Your task to perform on an android device: Is it going to rain today? Image 0: 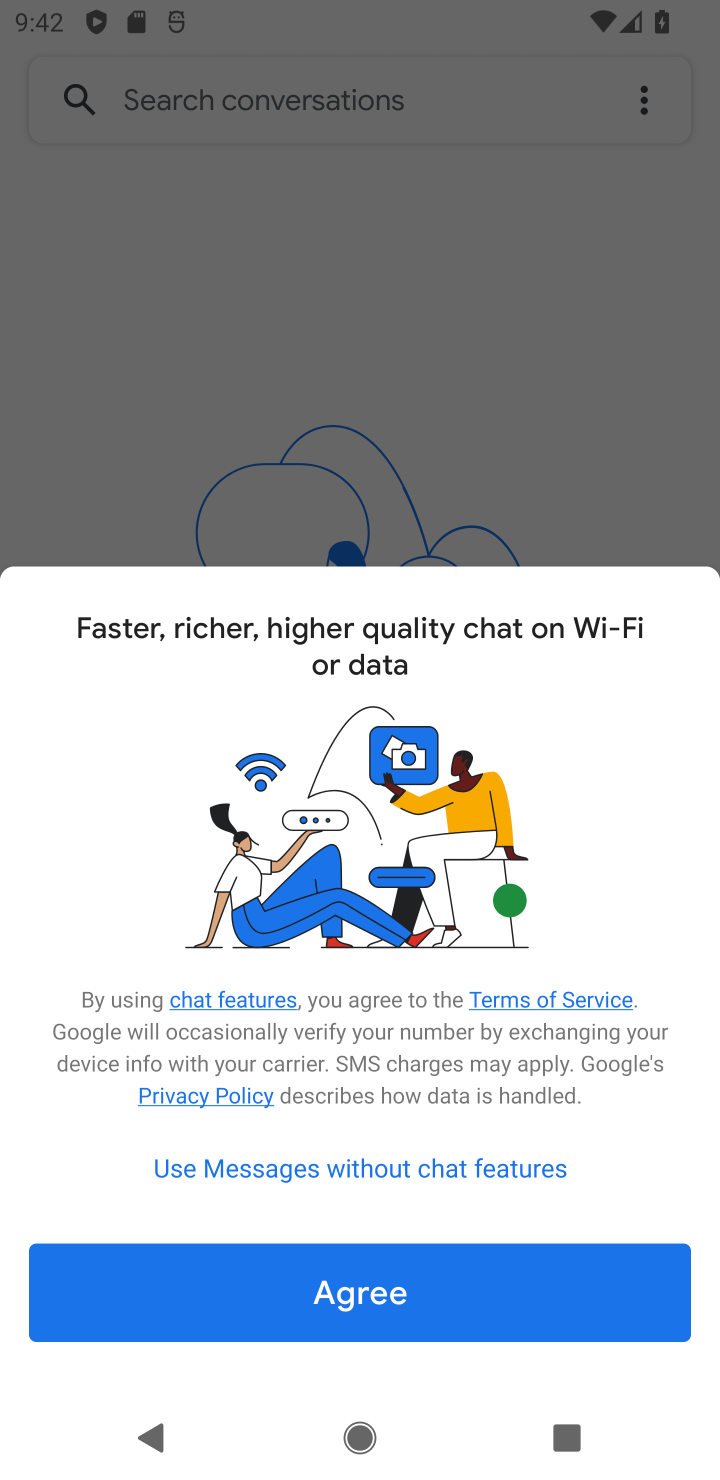
Step 0: click (325, 1301)
Your task to perform on an android device: Is it going to rain today? Image 1: 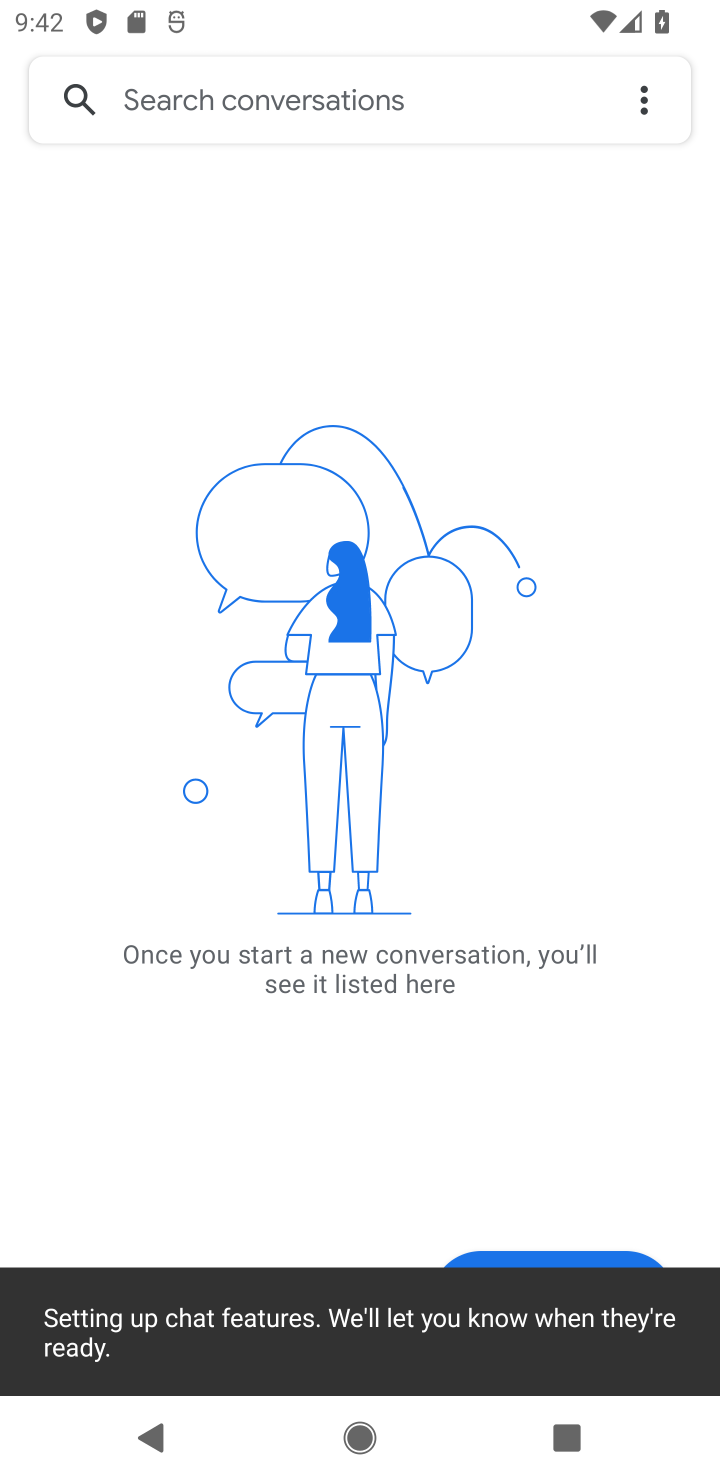
Step 1: press home button
Your task to perform on an android device: Is it going to rain today? Image 2: 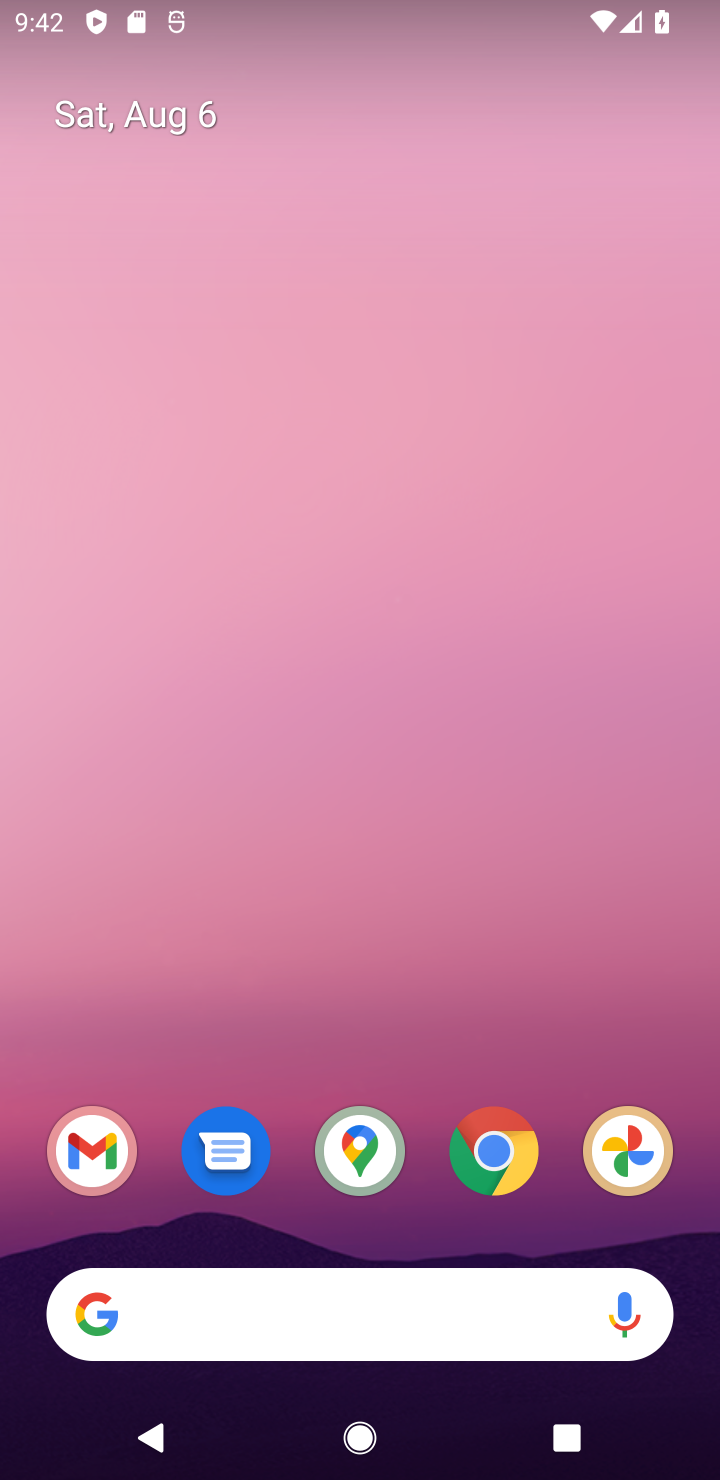
Step 2: drag from (390, 578) to (406, 222)
Your task to perform on an android device: Is it going to rain today? Image 3: 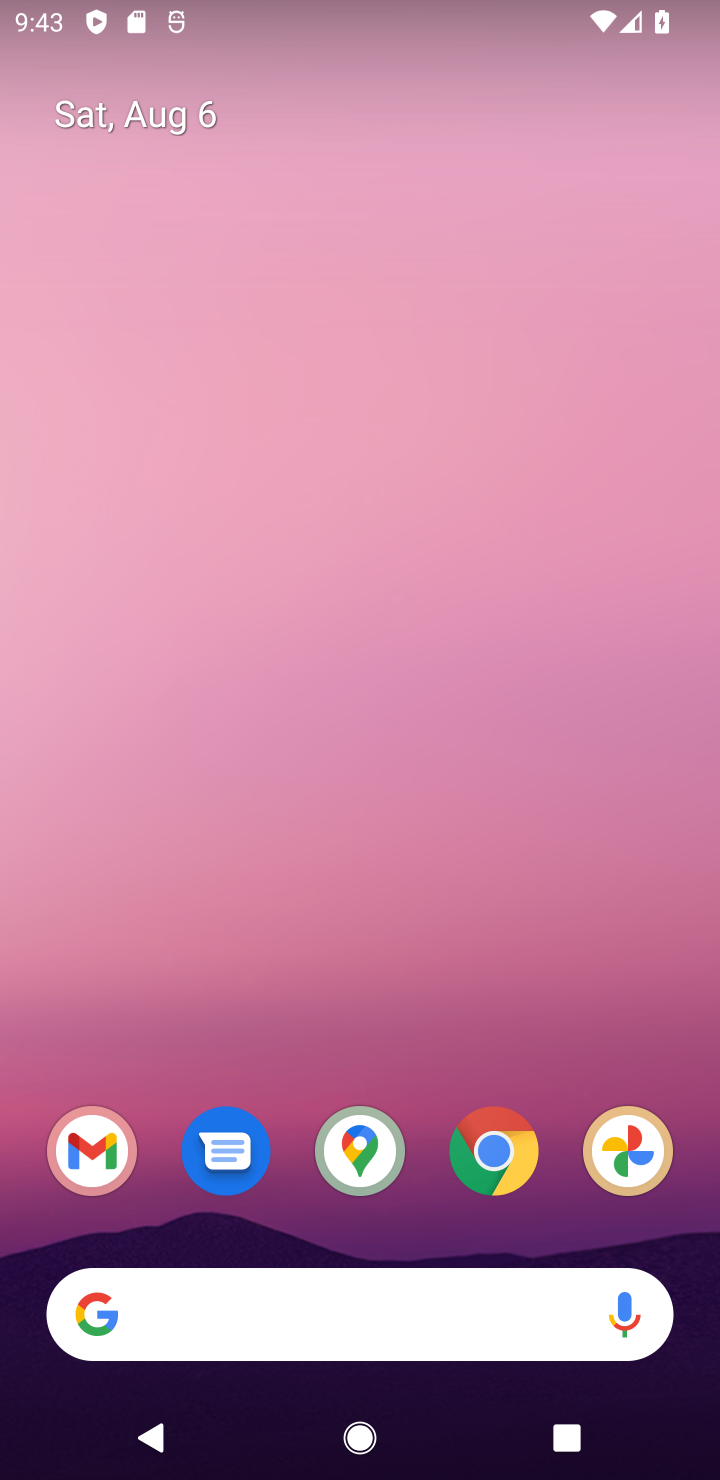
Step 3: drag from (351, 621) to (353, 172)
Your task to perform on an android device: Is it going to rain today? Image 4: 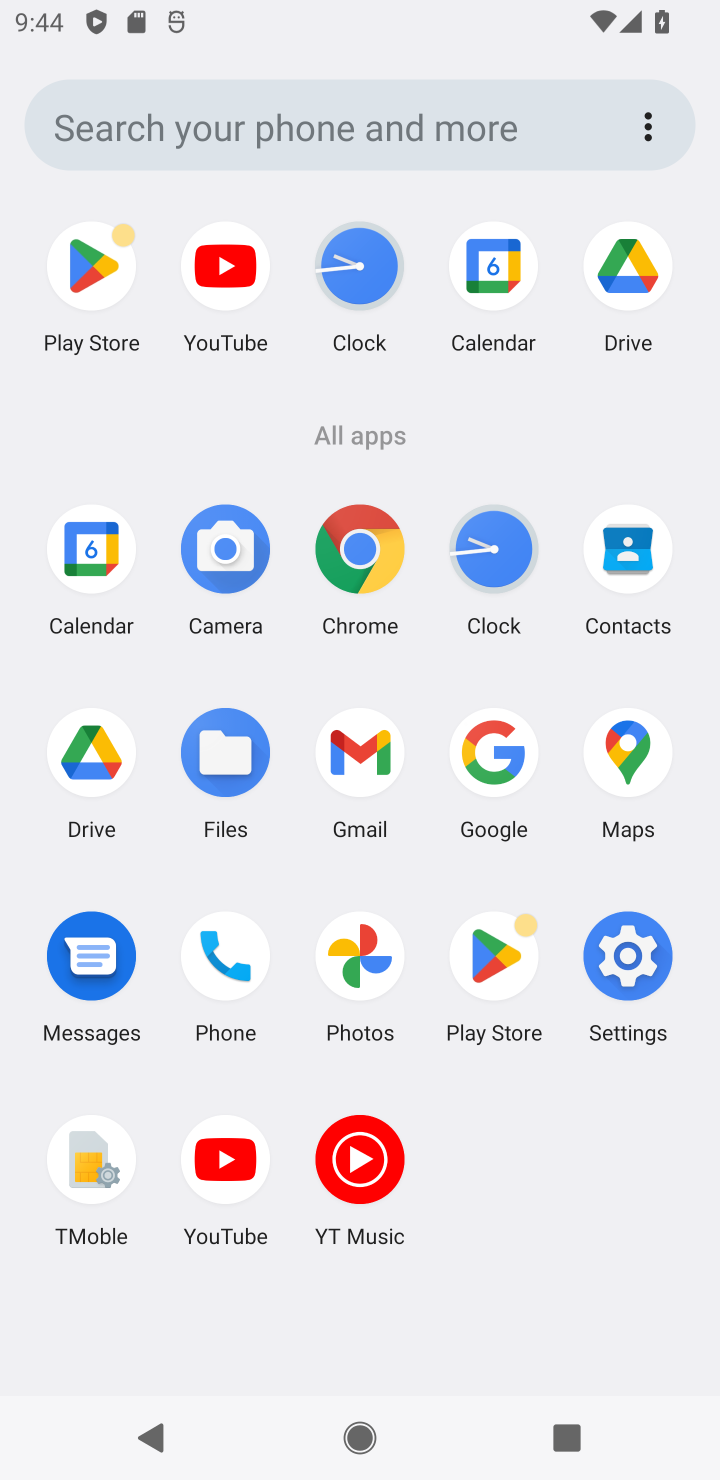
Step 4: click (335, 572)
Your task to perform on an android device: Is it going to rain today? Image 5: 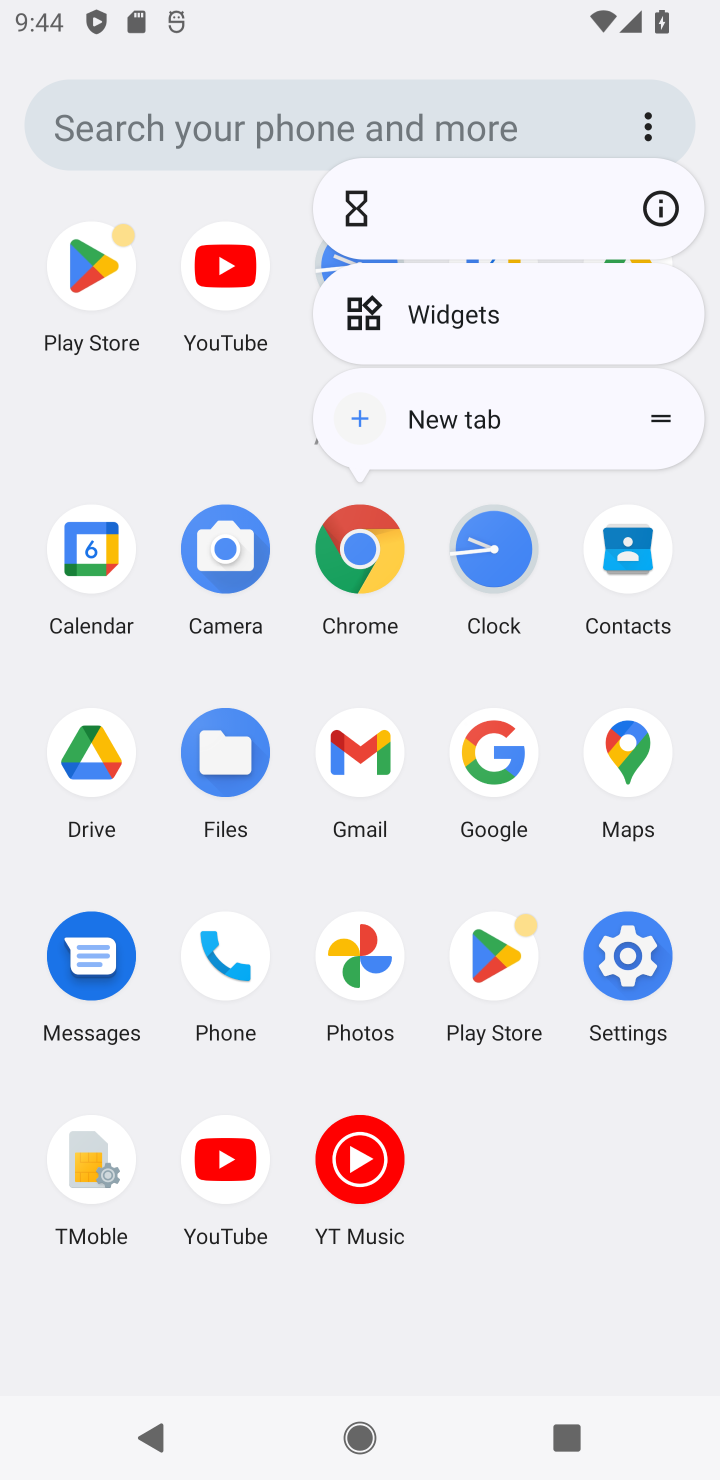
Step 5: click (360, 583)
Your task to perform on an android device: Is it going to rain today? Image 6: 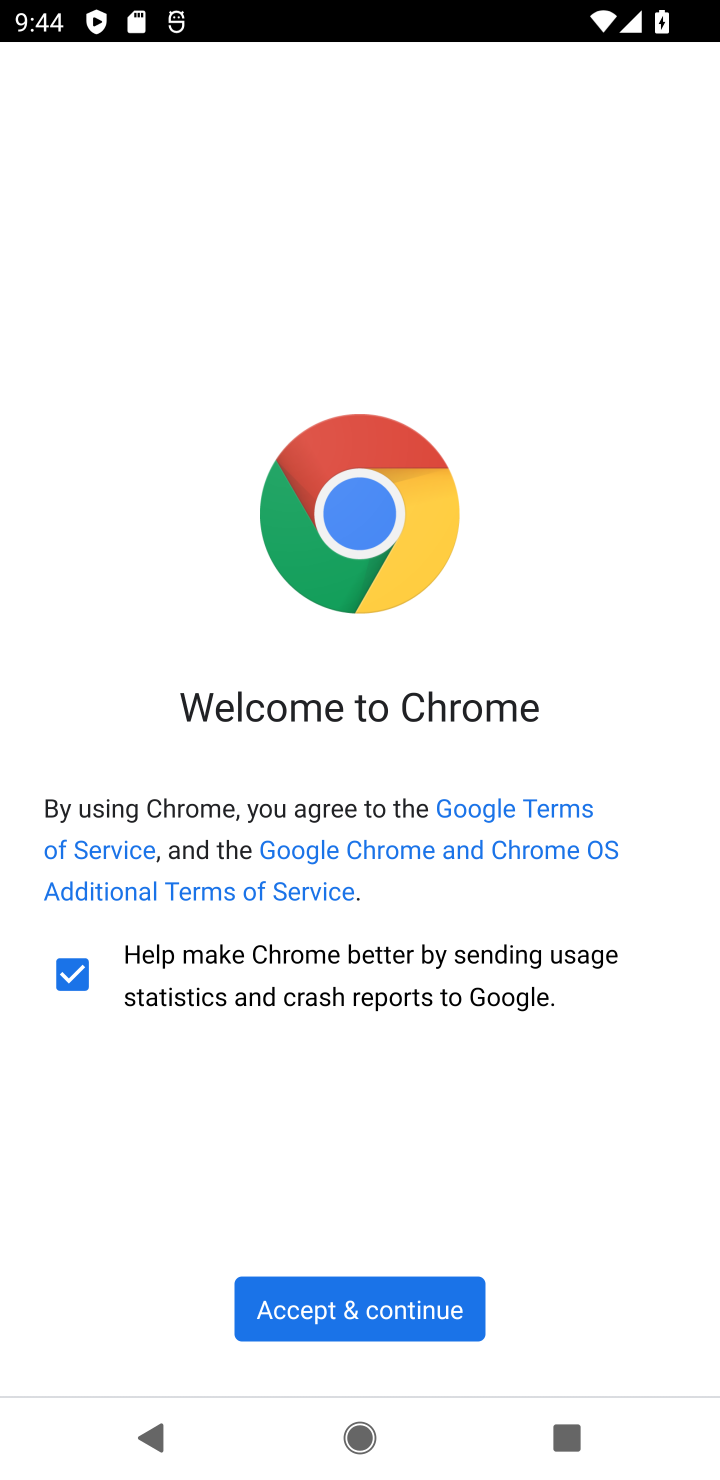
Step 6: click (357, 1310)
Your task to perform on an android device: Is it going to rain today? Image 7: 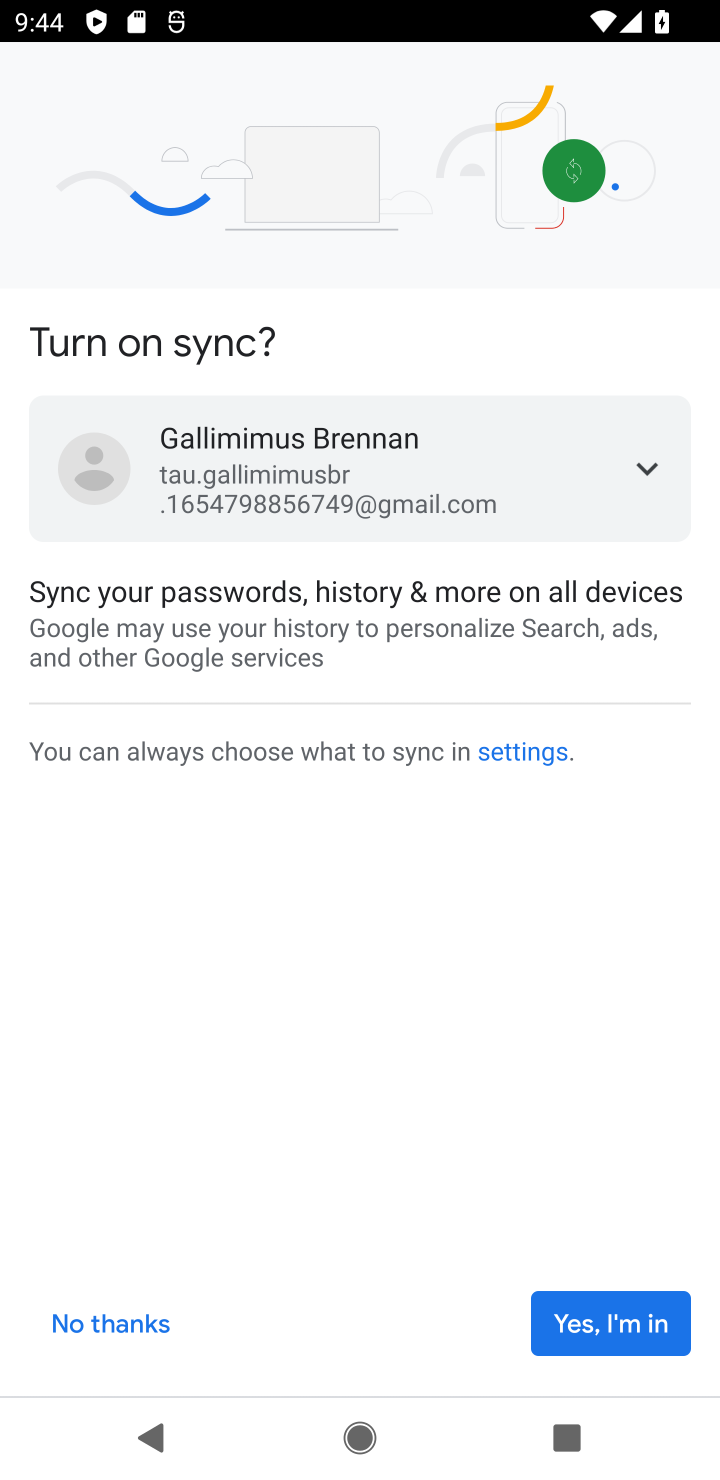
Step 7: click (60, 1329)
Your task to perform on an android device: Is it going to rain today? Image 8: 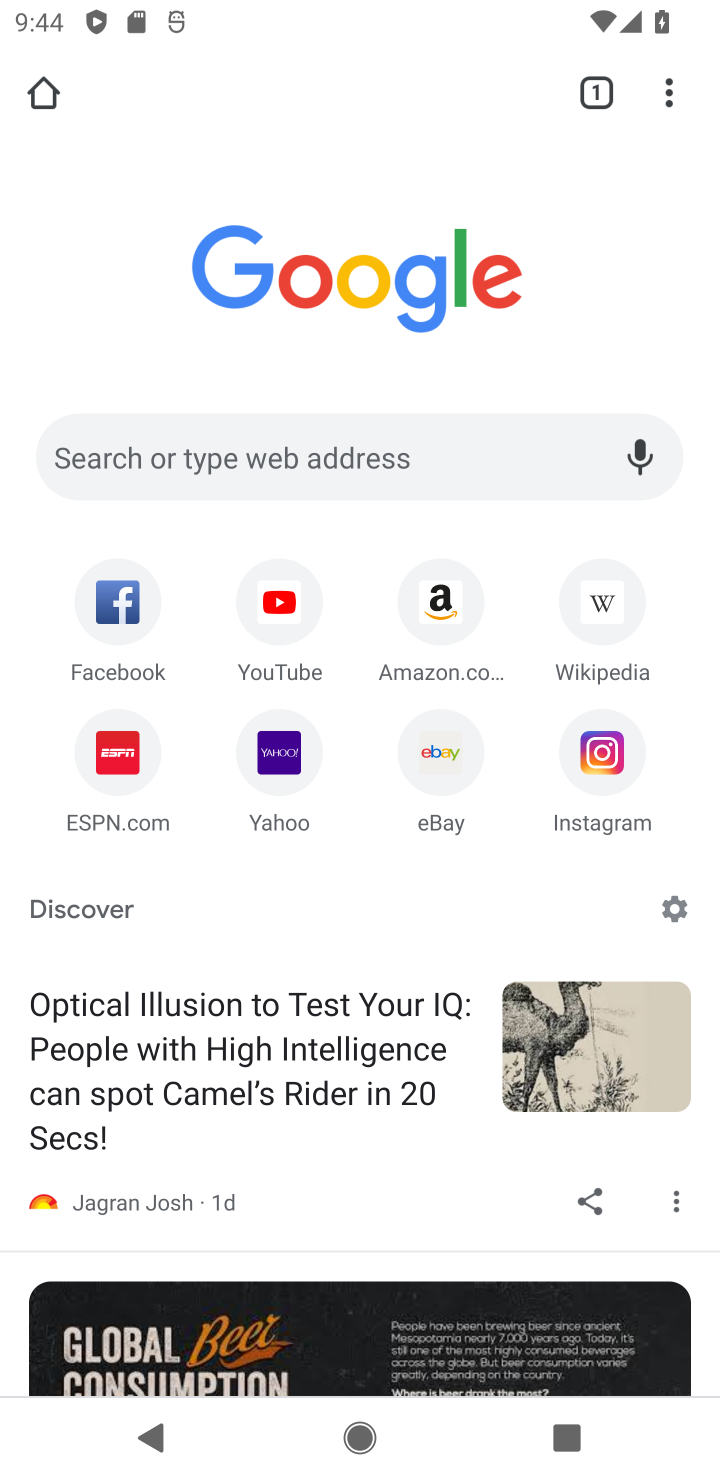
Step 8: click (228, 466)
Your task to perform on an android device: Is it going to rain today? Image 9: 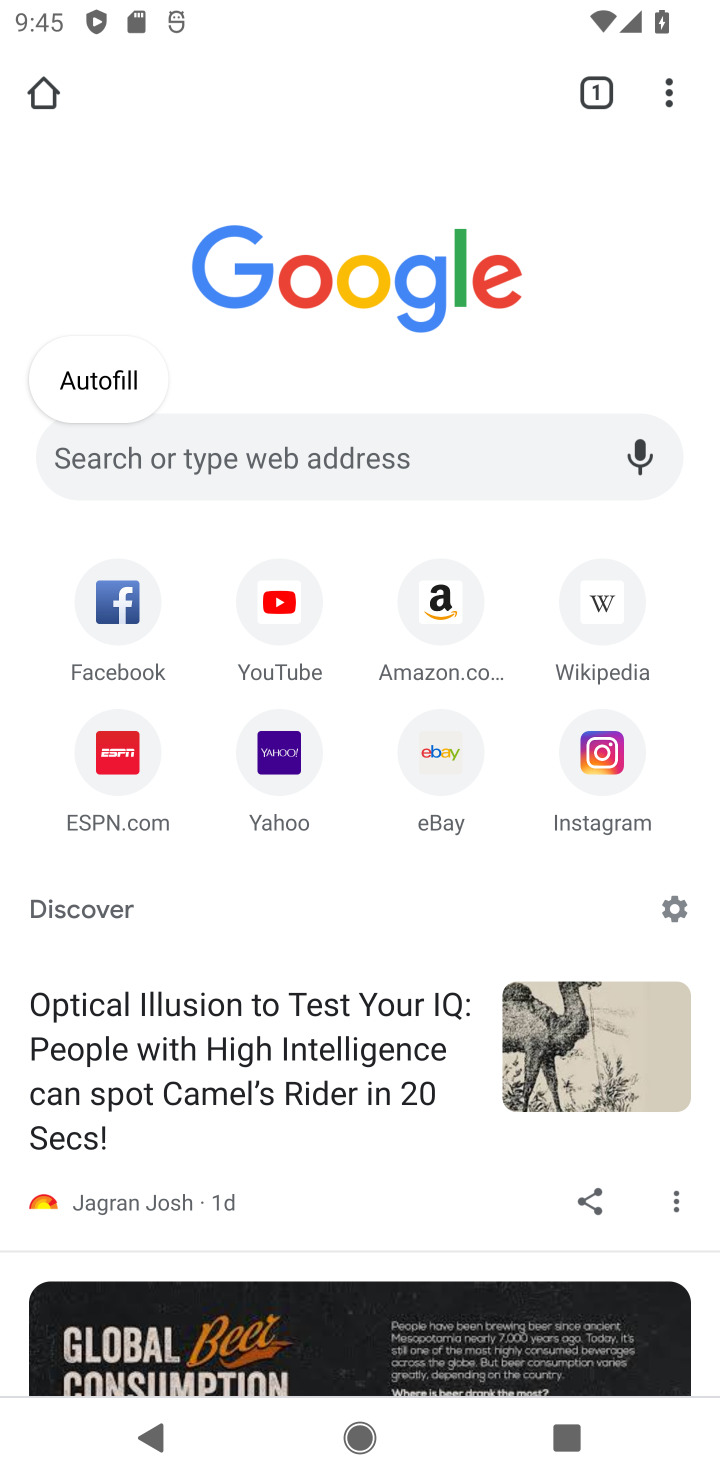
Step 9: type "Is it going to rain today?"
Your task to perform on an android device: Is it going to rain today? Image 10: 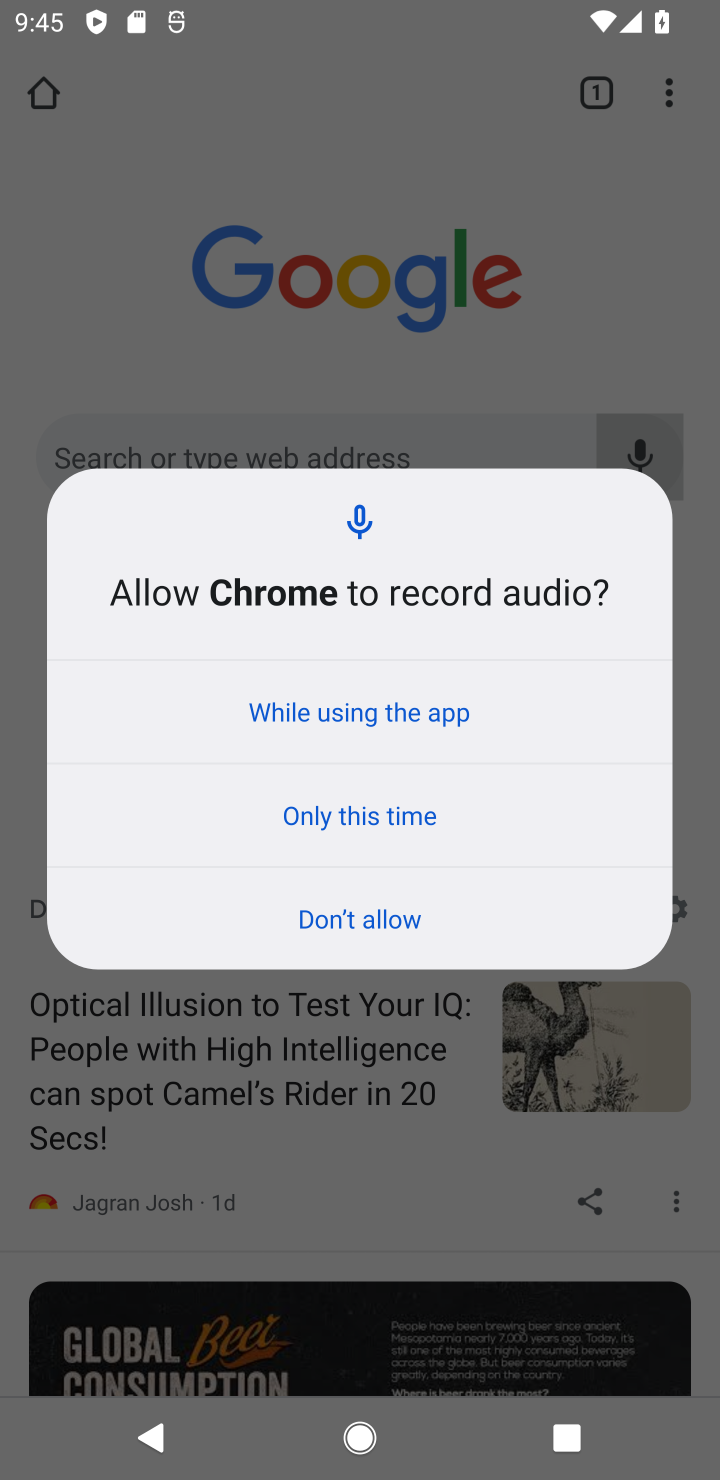
Step 10: type ""
Your task to perform on an android device: Is it going to rain today? Image 11: 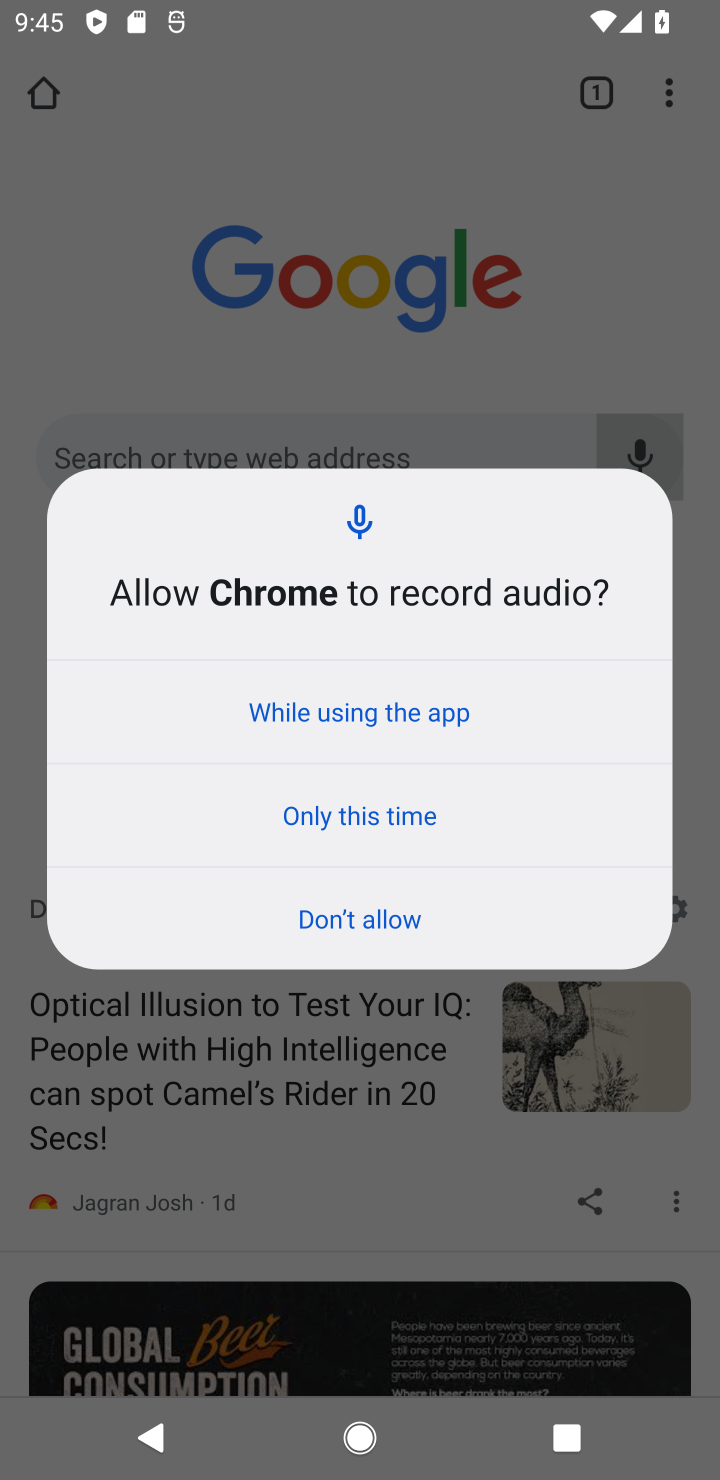
Step 11: click (320, 809)
Your task to perform on an android device: Is it going to rain today? Image 12: 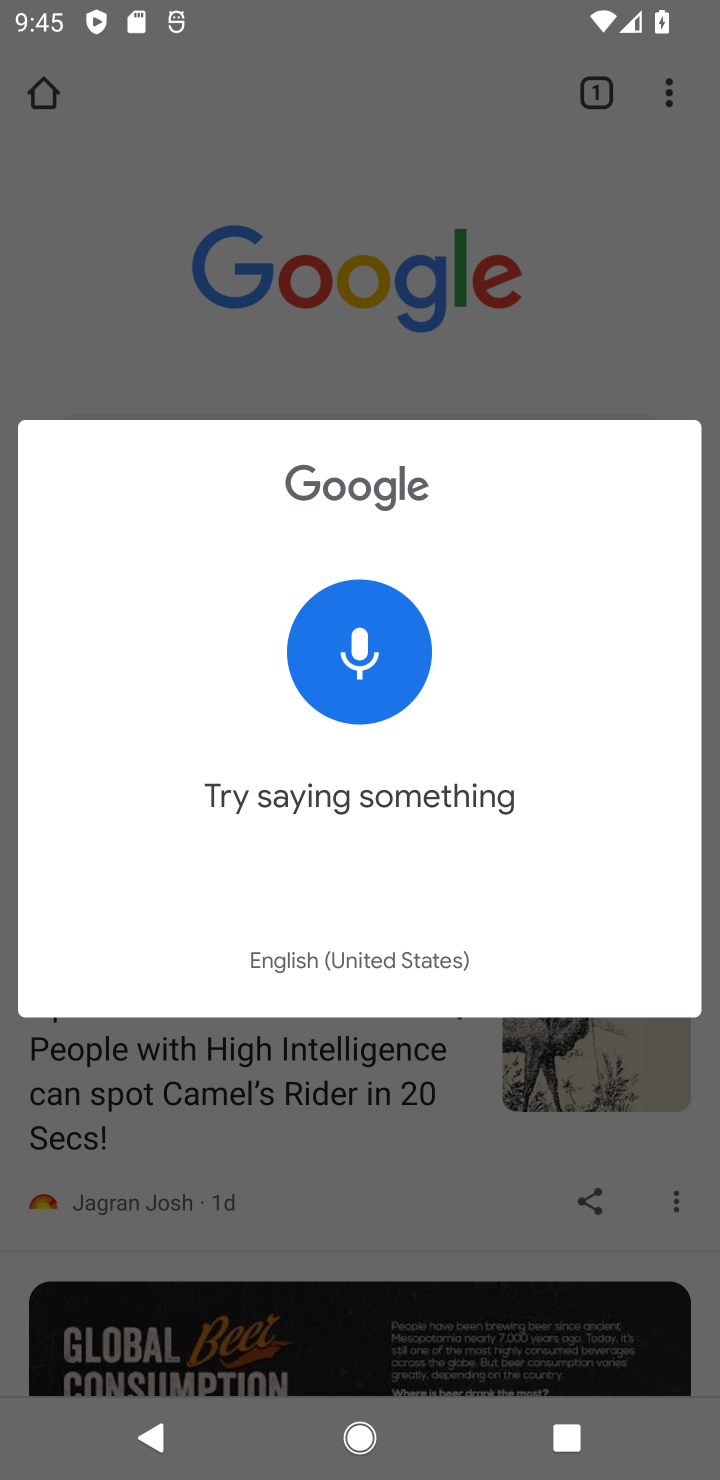
Step 12: click (379, 1132)
Your task to perform on an android device: Is it going to rain today? Image 13: 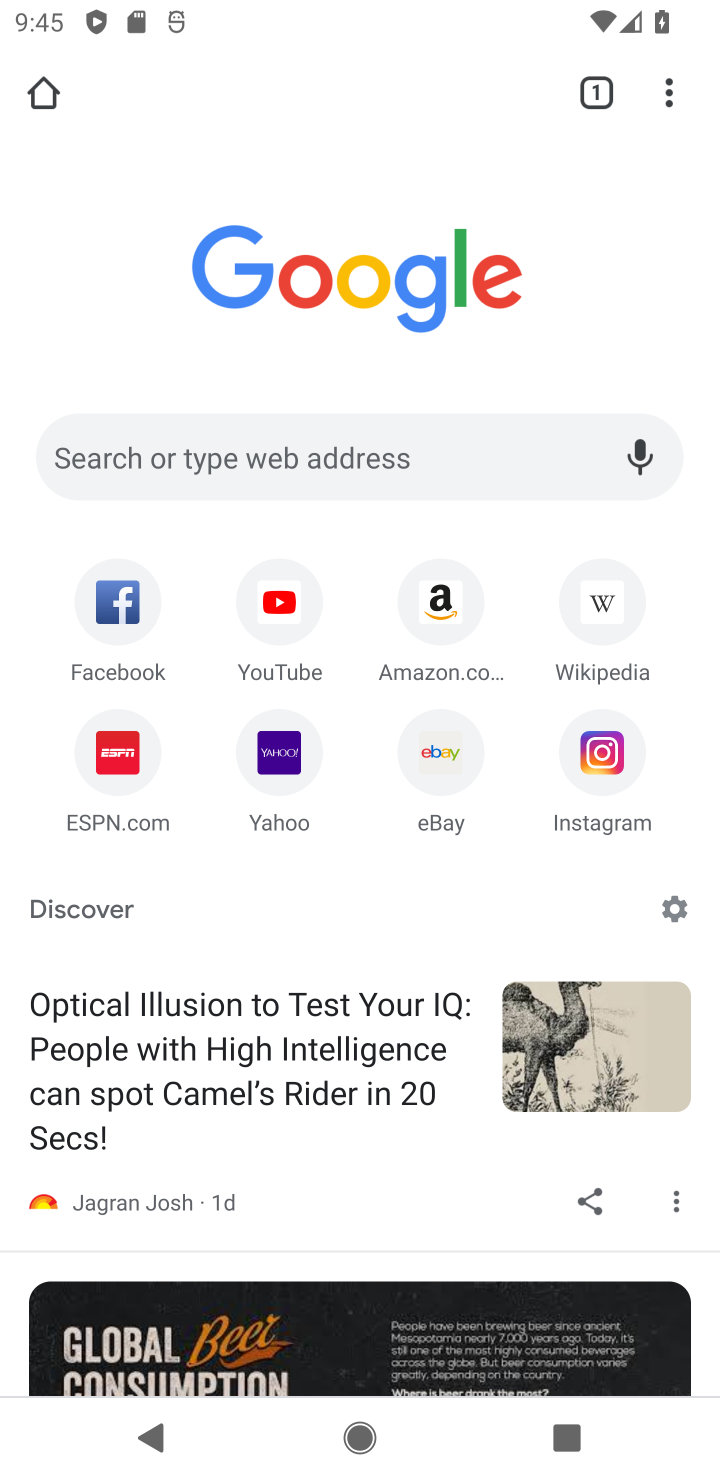
Step 13: click (99, 466)
Your task to perform on an android device: Is it going to rain today? Image 14: 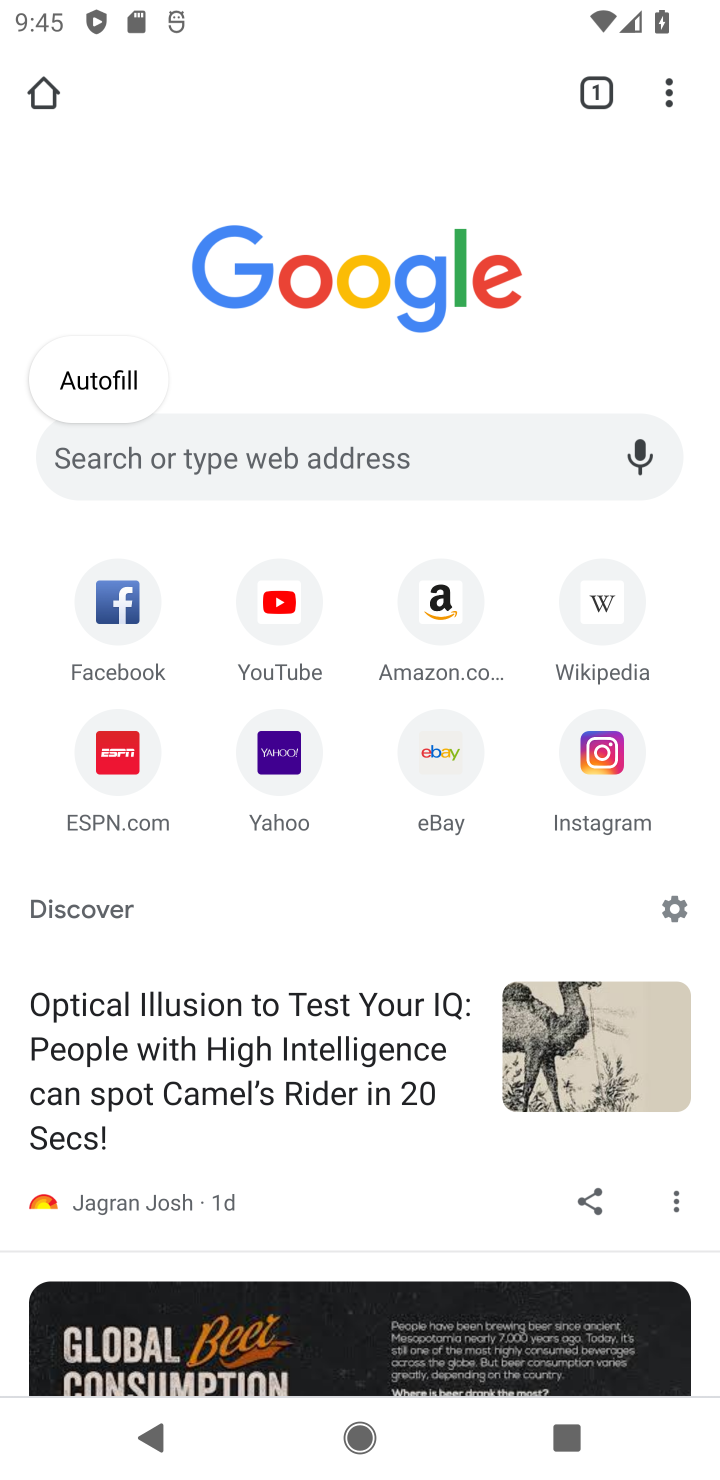
Step 14: type "Is it going to rain today?"
Your task to perform on an android device: Is it going to rain today? Image 15: 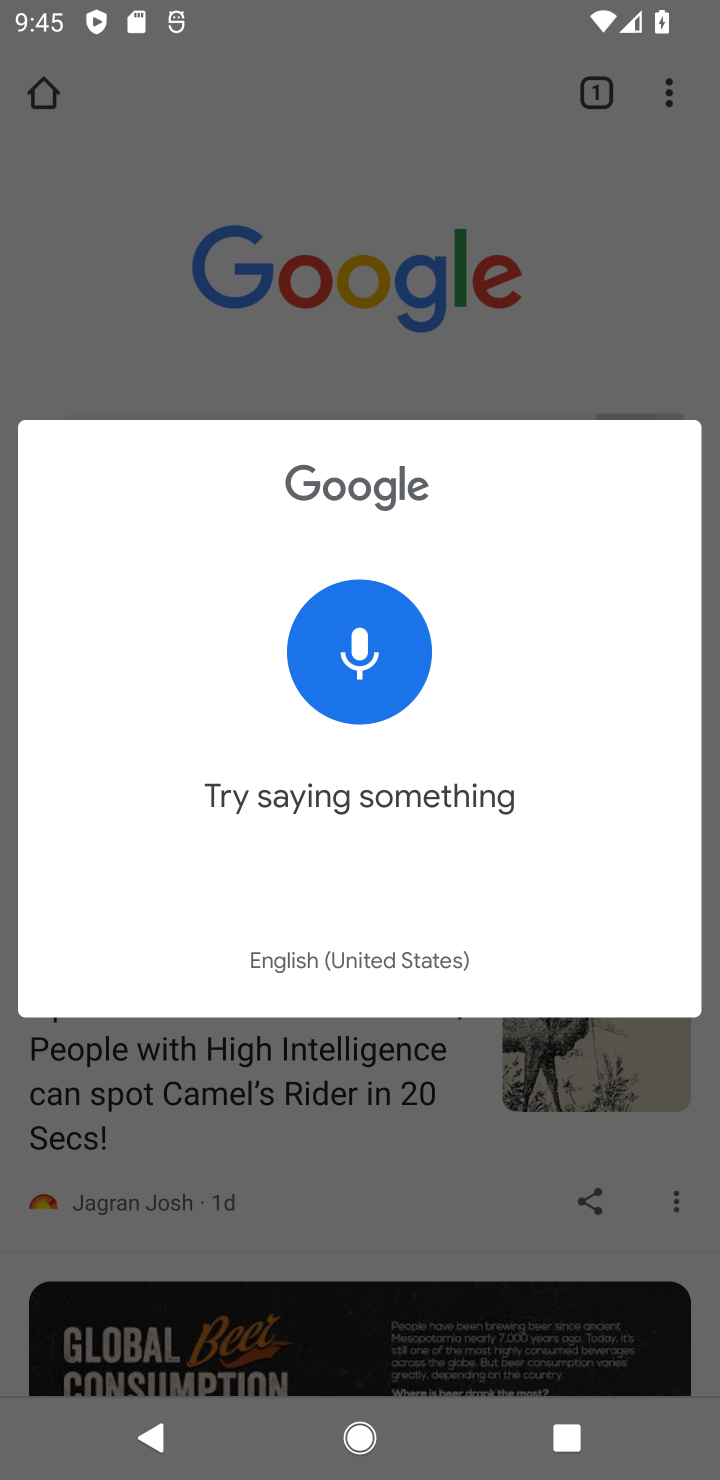
Step 15: press enter
Your task to perform on an android device: Is it going to rain today? Image 16: 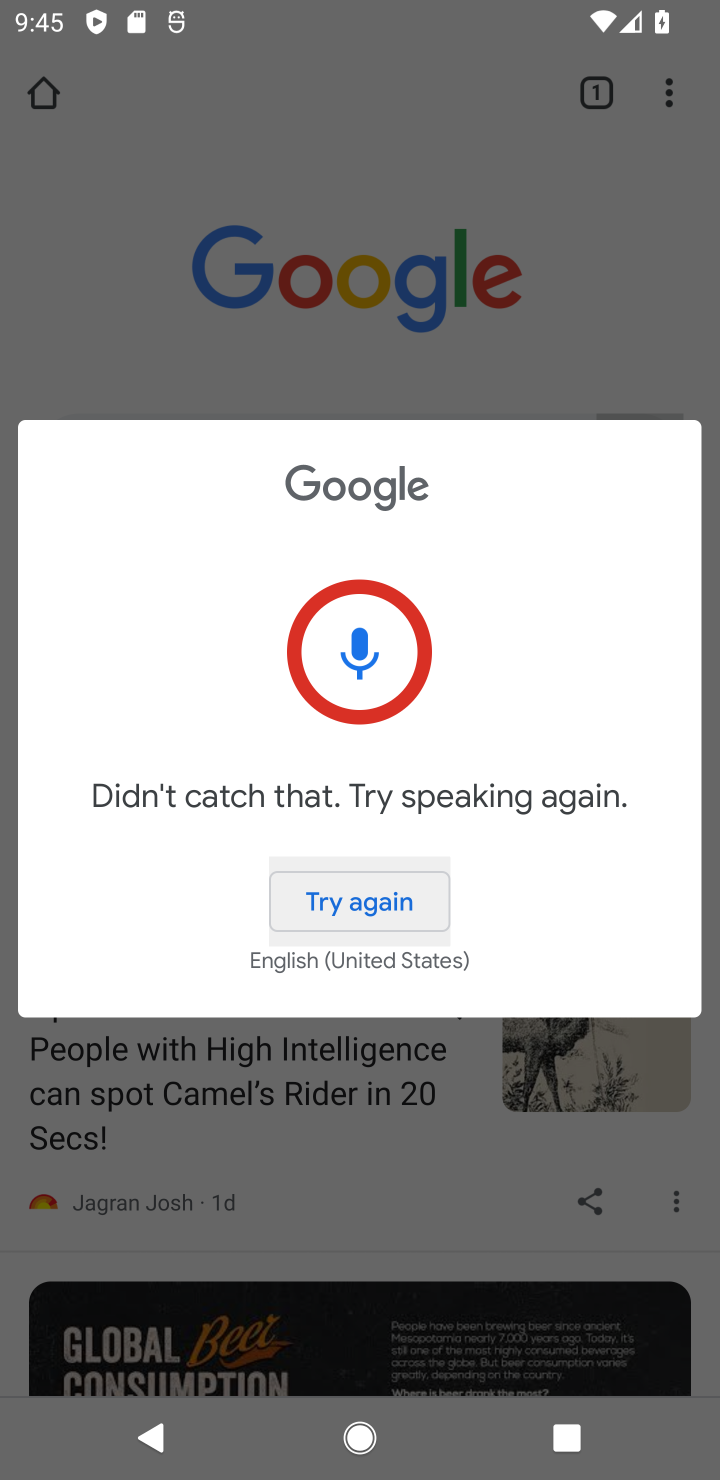
Step 16: click (452, 1204)
Your task to perform on an android device: Is it going to rain today? Image 17: 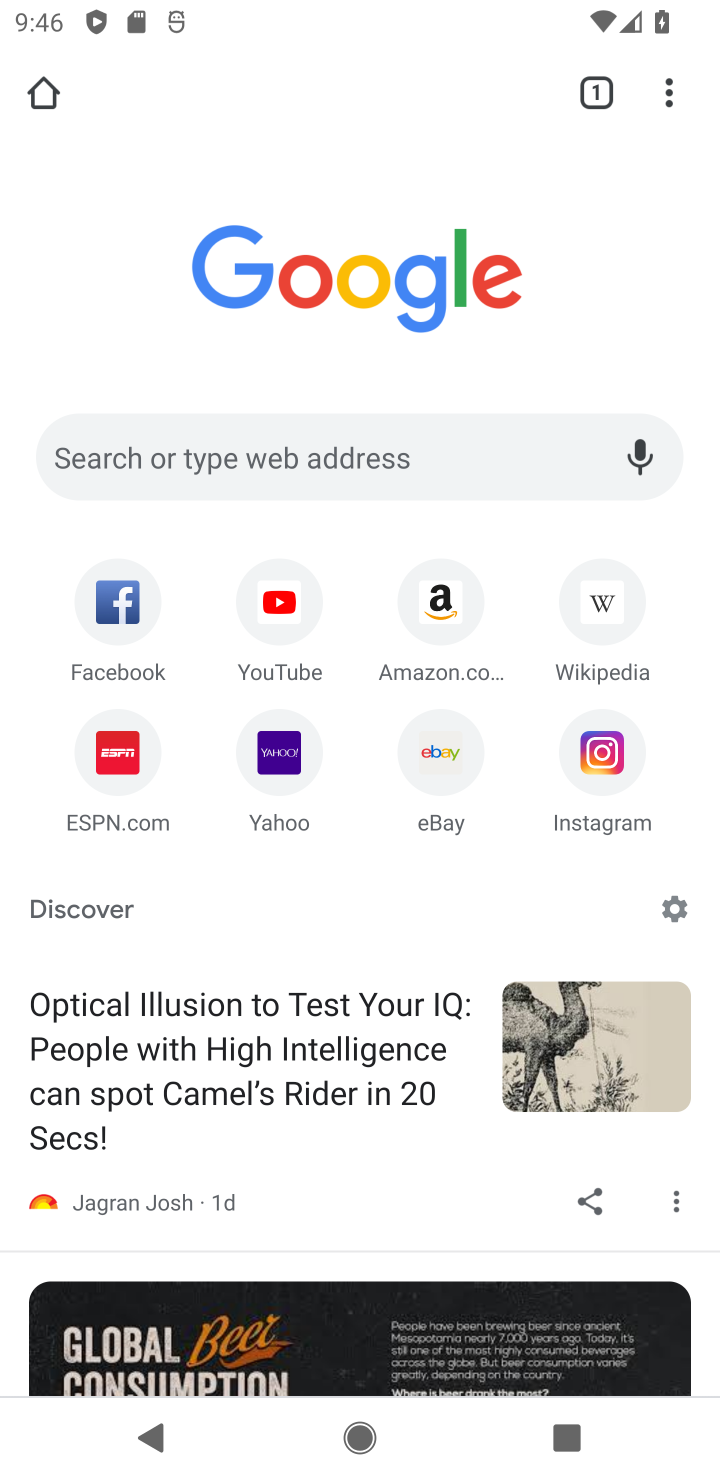
Step 17: click (593, 81)
Your task to perform on an android device: Is it going to rain today? Image 18: 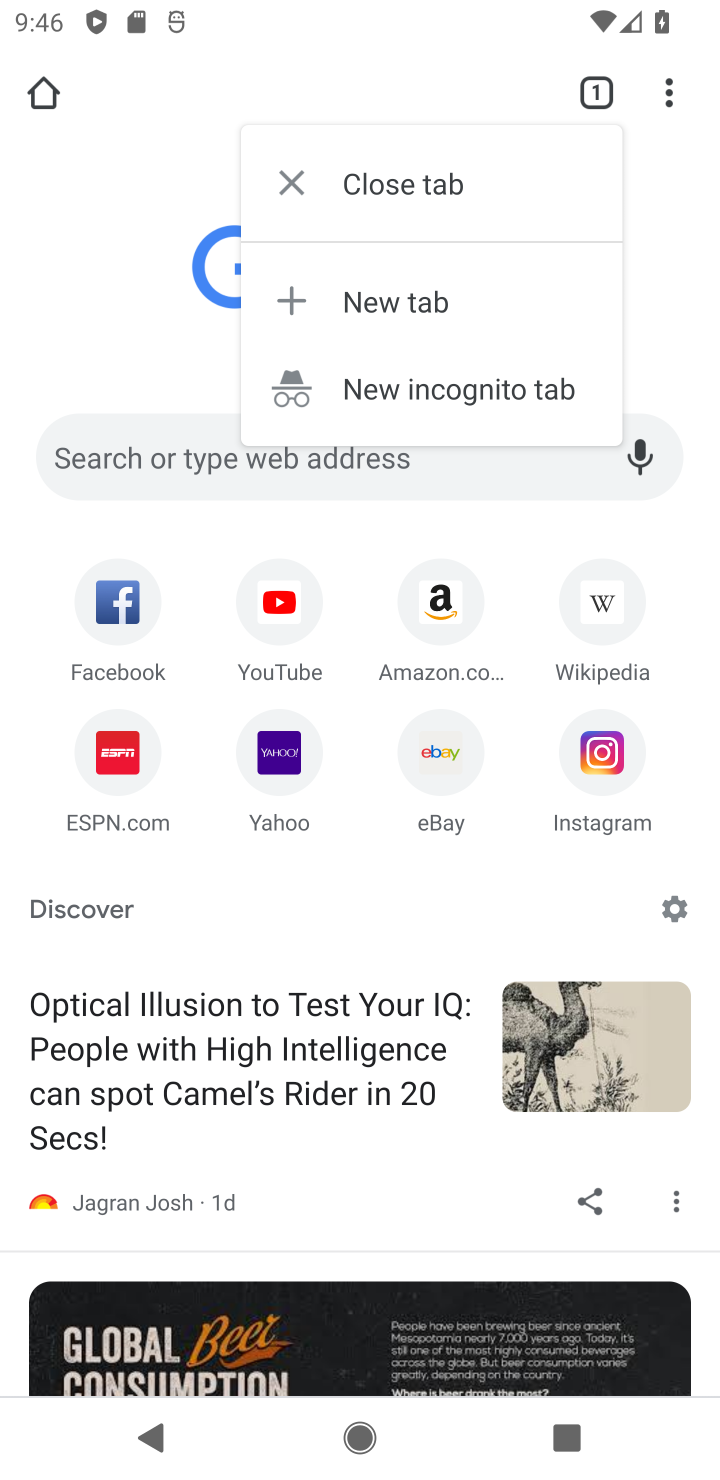
Step 18: click (115, 515)
Your task to perform on an android device: Is it going to rain today? Image 19: 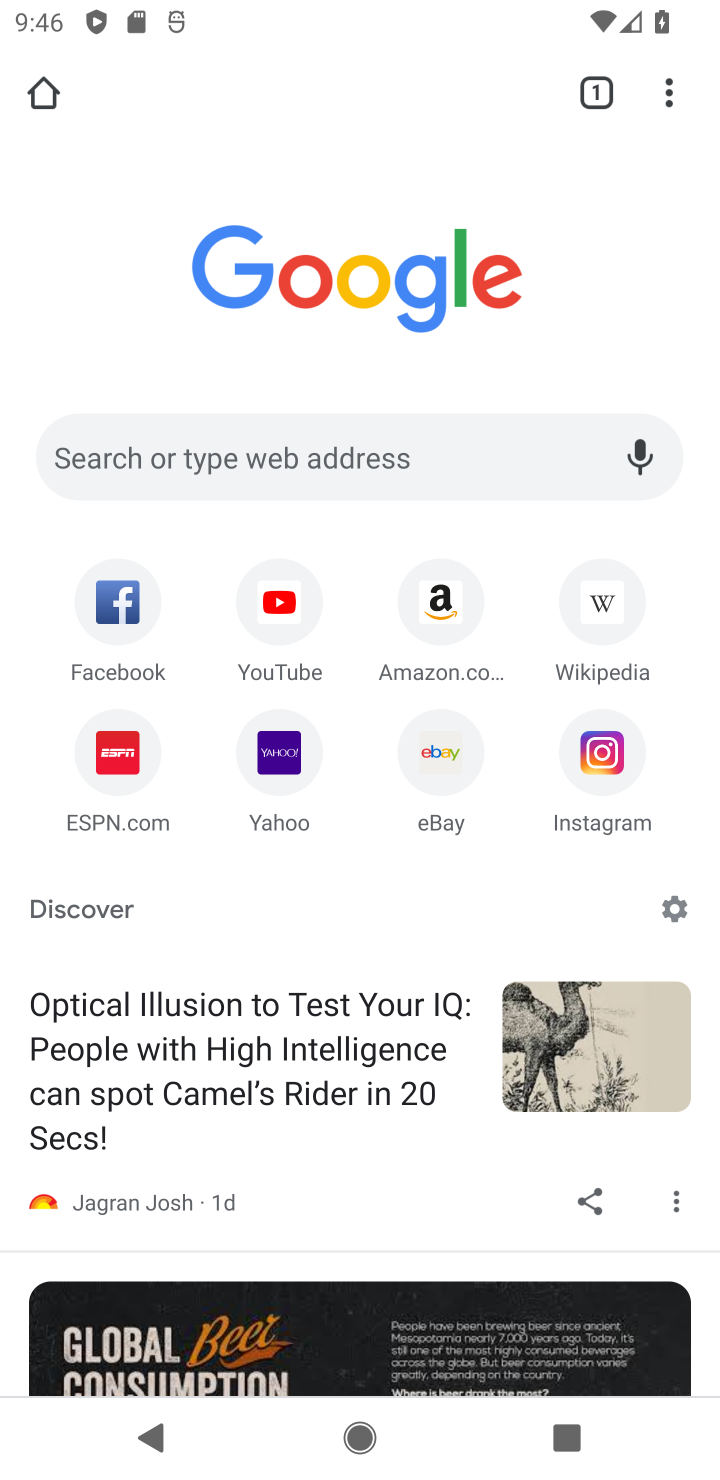
Step 19: click (108, 470)
Your task to perform on an android device: Is it going to rain today? Image 20: 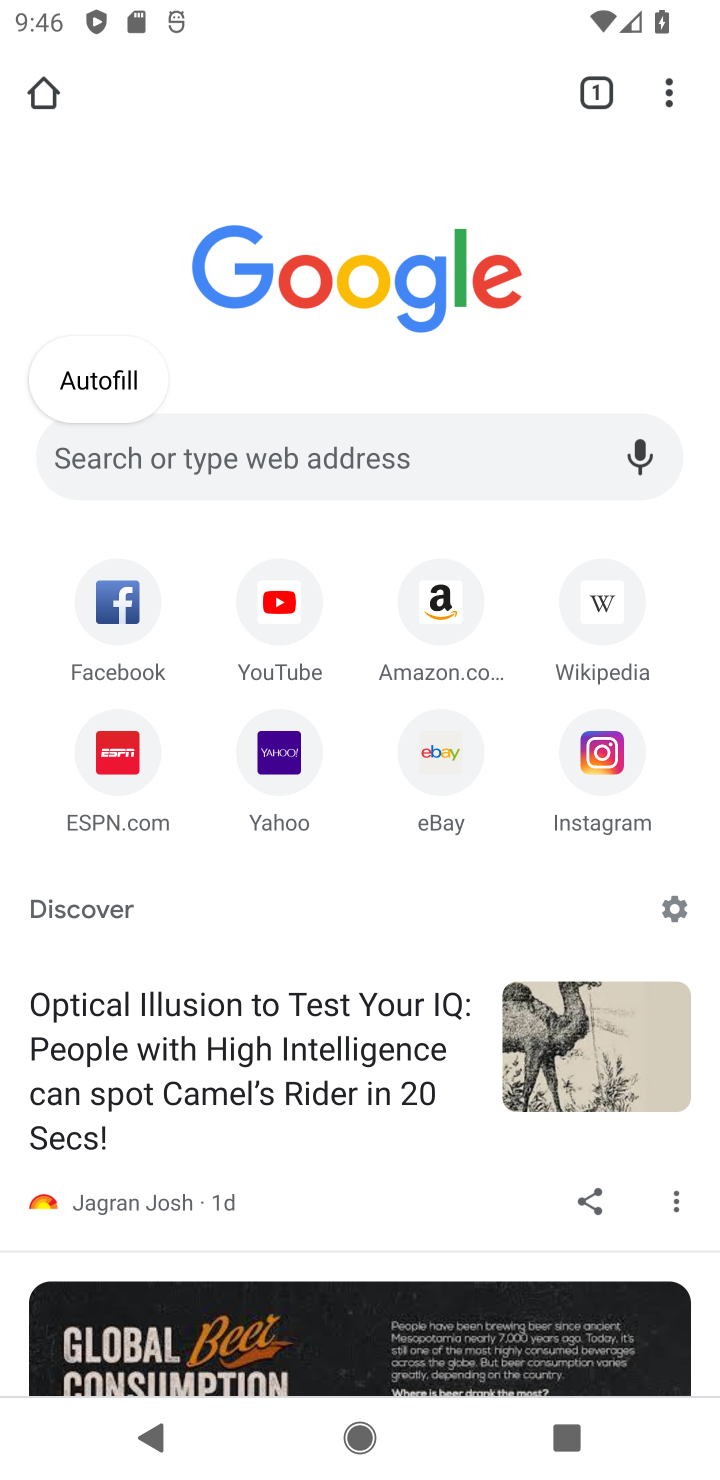
Step 20: type "Is it going to rain today?"
Your task to perform on an android device: Is it going to rain today? Image 21: 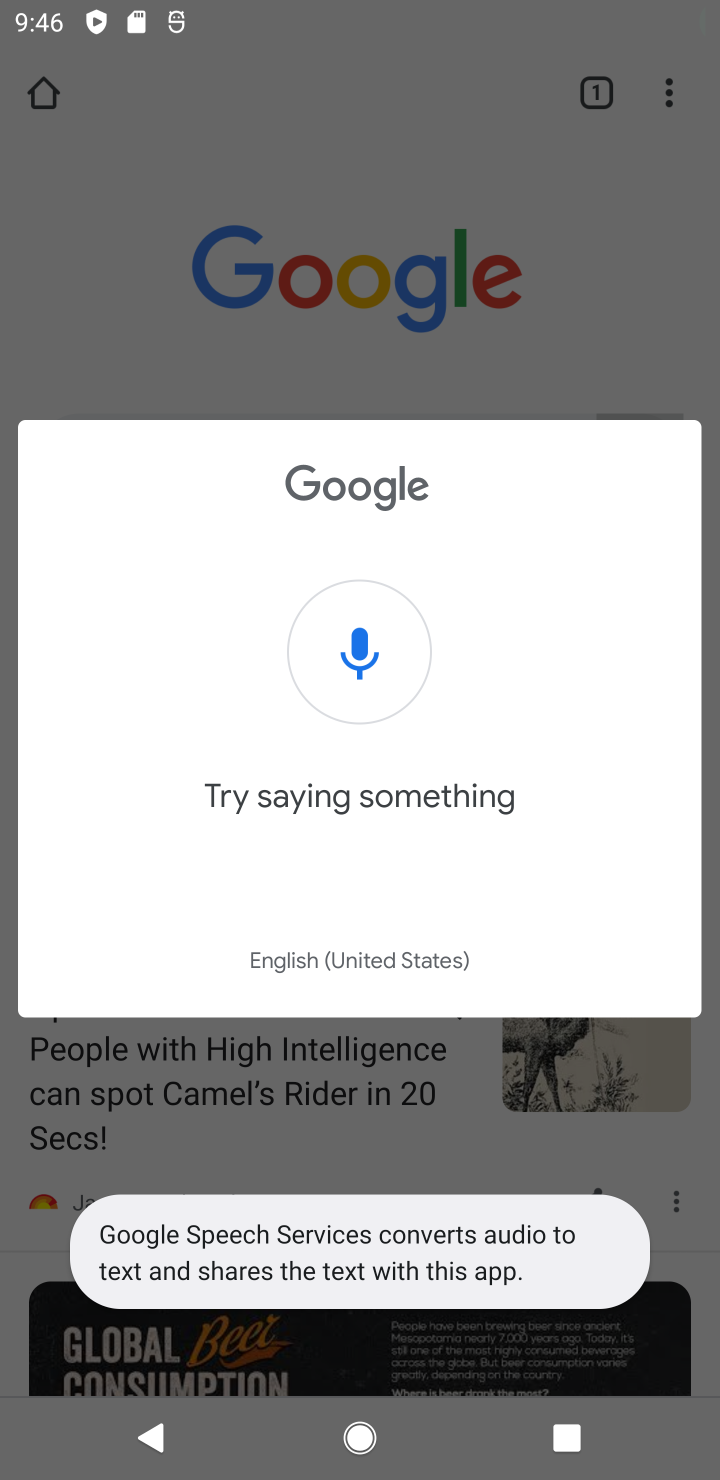
Step 21: press enter
Your task to perform on an android device: Is it going to rain today? Image 22: 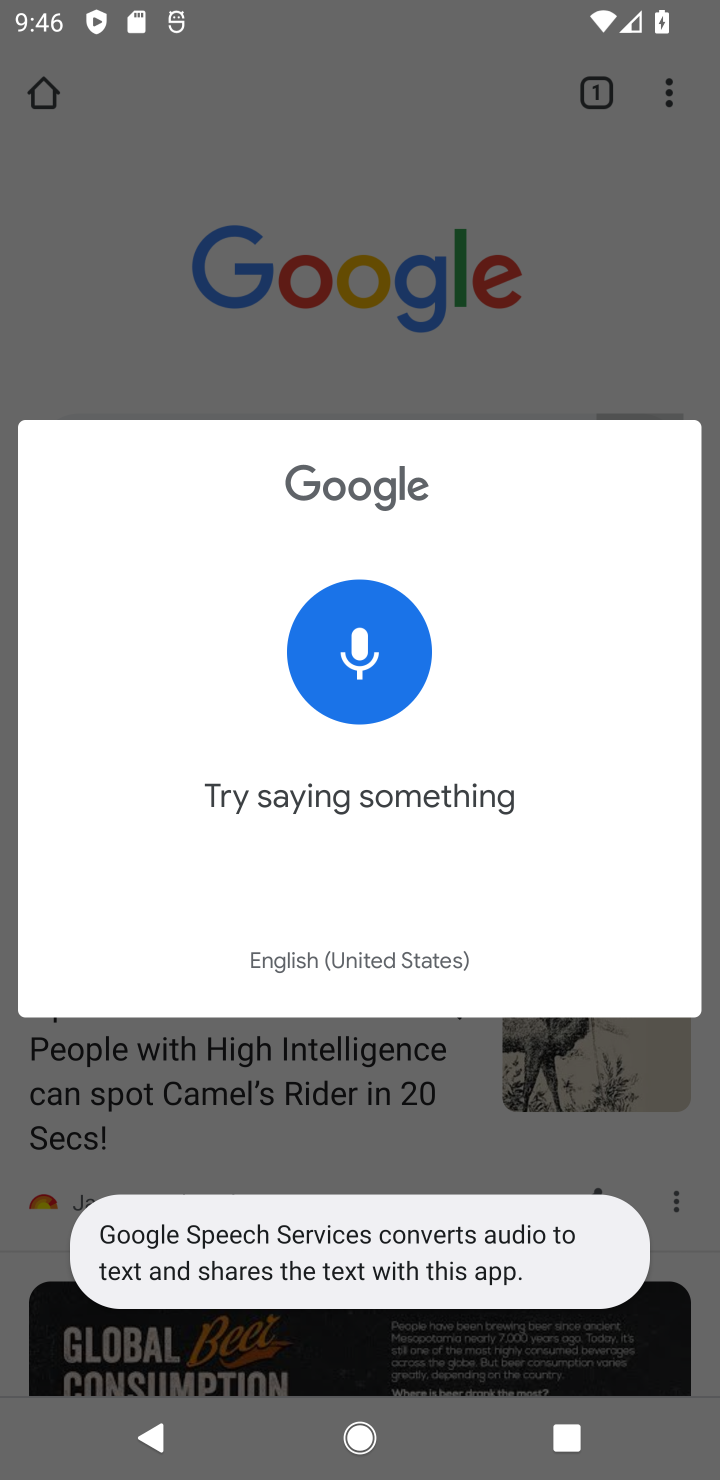
Step 22: type ""
Your task to perform on an android device: Is it going to rain today? Image 23: 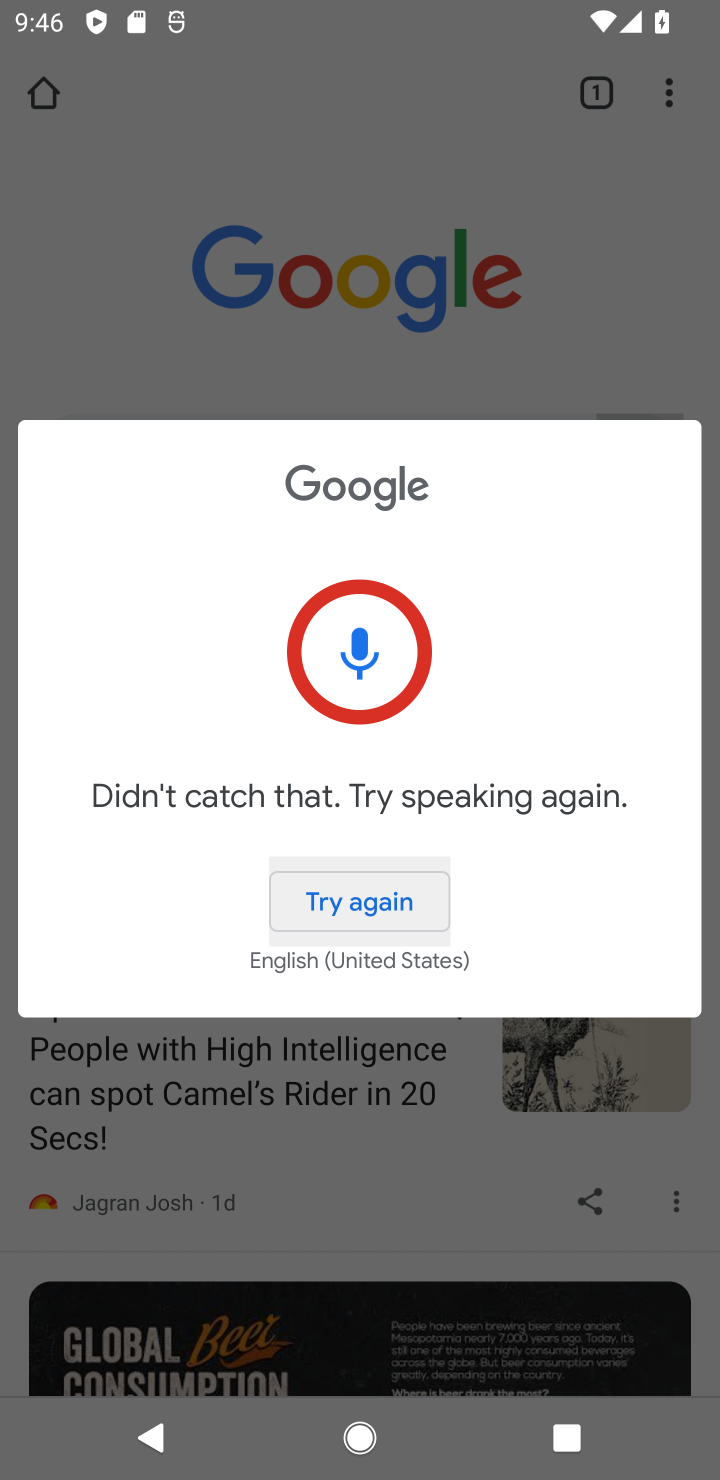
Step 23: task complete